Your task to perform on an android device: Search for dell alienware on amazon.com, select the first entry, and add it to the cart. Image 0: 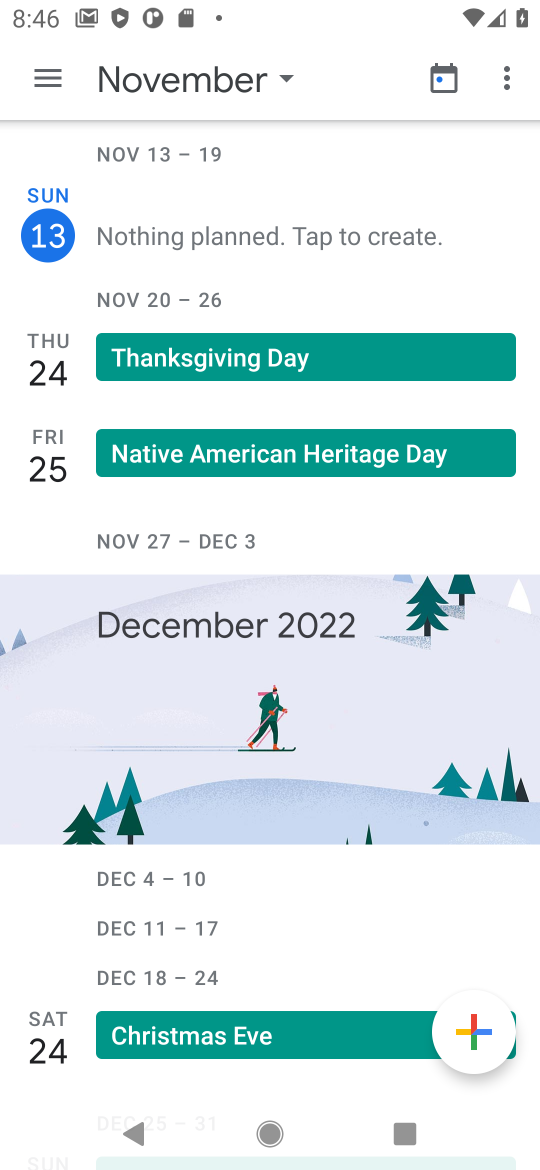
Step 0: press home button
Your task to perform on an android device: Search for dell alienware on amazon.com, select the first entry, and add it to the cart. Image 1: 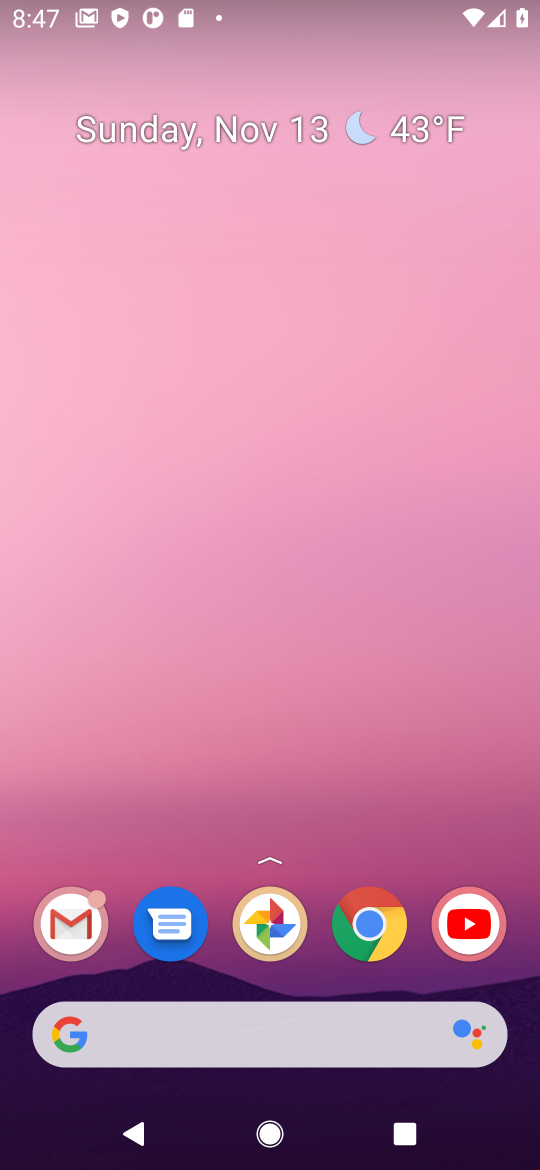
Step 1: click (352, 921)
Your task to perform on an android device: Search for dell alienware on amazon.com, select the first entry, and add it to the cart. Image 2: 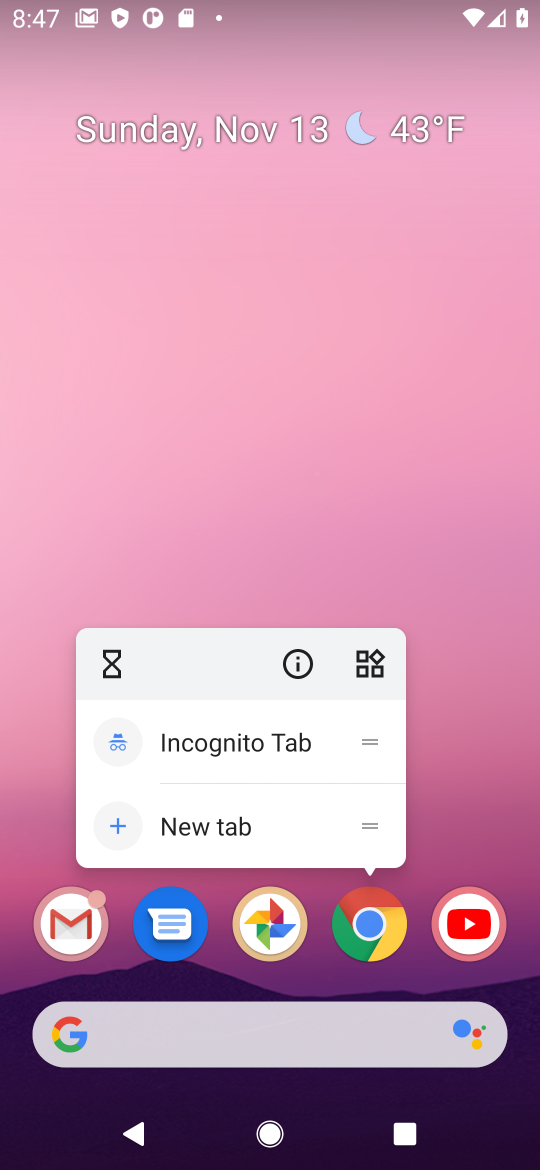
Step 2: click (362, 924)
Your task to perform on an android device: Search for dell alienware on amazon.com, select the first entry, and add it to the cart. Image 3: 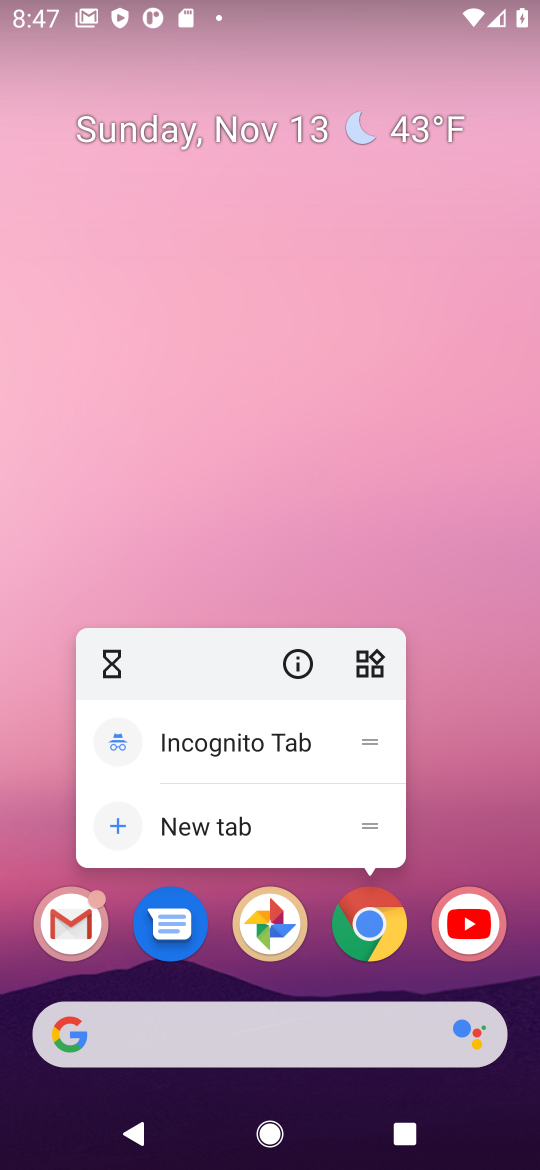
Step 3: click (363, 928)
Your task to perform on an android device: Search for dell alienware on amazon.com, select the first entry, and add it to the cart. Image 4: 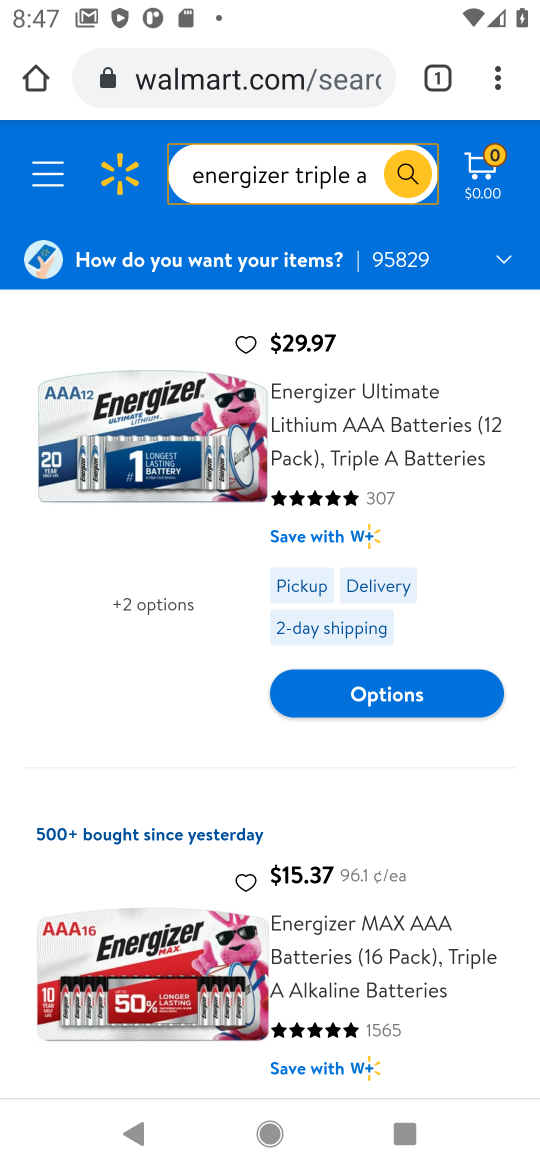
Step 4: click (311, 78)
Your task to perform on an android device: Search for dell alienware on amazon.com, select the first entry, and add it to the cart. Image 5: 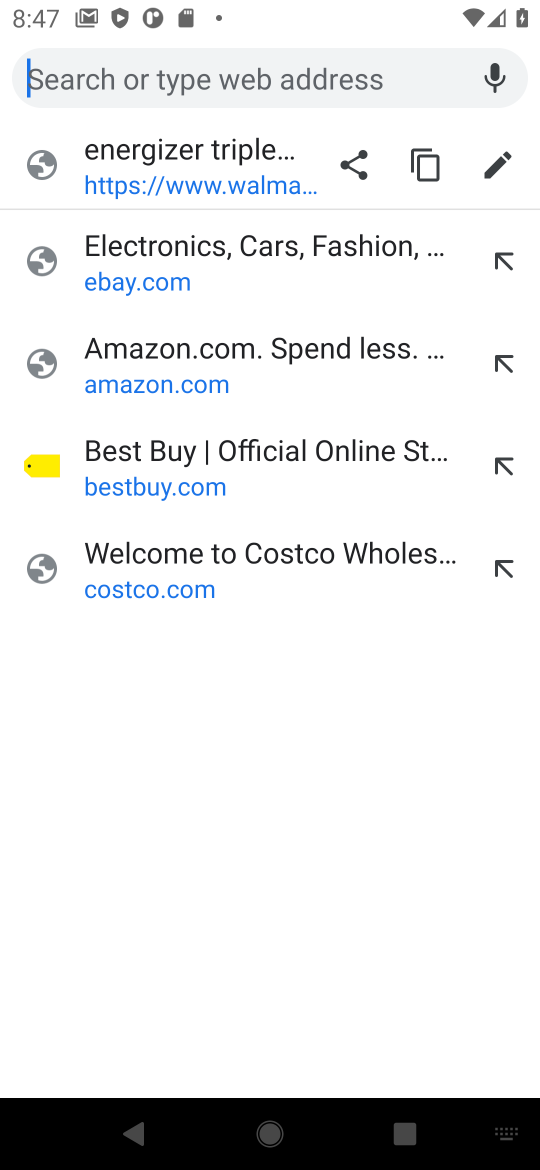
Step 5: click (124, 375)
Your task to perform on an android device: Search for dell alienware on amazon.com, select the first entry, and add it to the cart. Image 6: 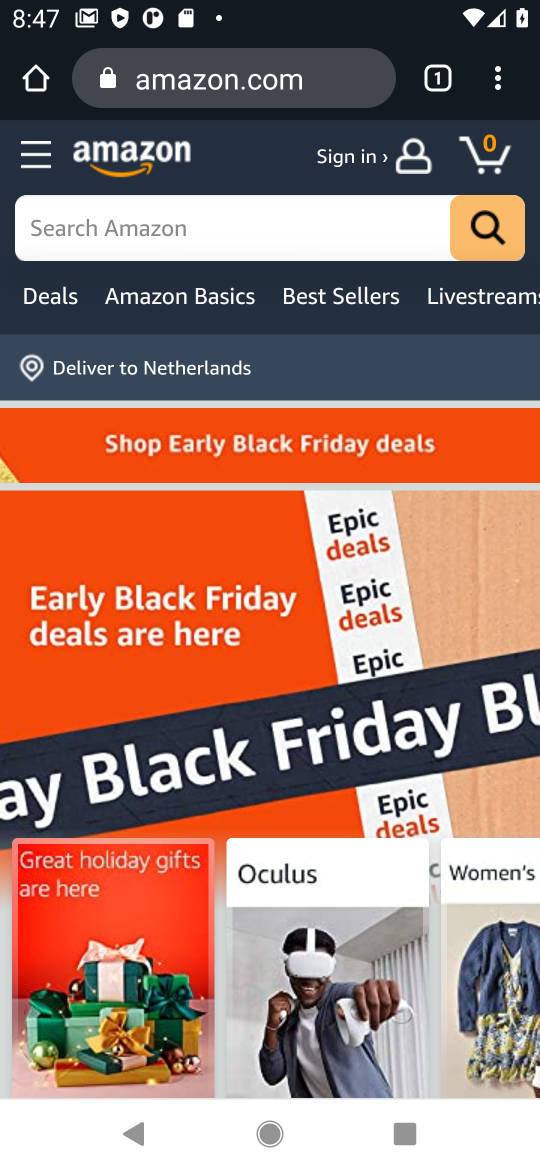
Step 6: click (126, 218)
Your task to perform on an android device: Search for dell alienware on amazon.com, select the first entry, and add it to the cart. Image 7: 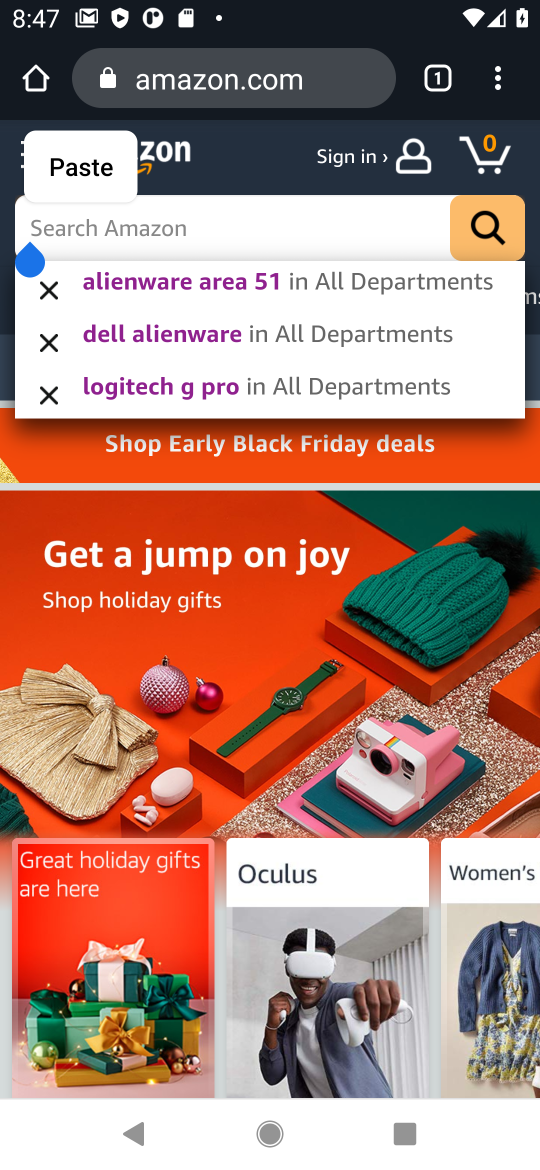
Step 7: click (126, 218)
Your task to perform on an android device: Search for dell alienware on amazon.com, select the first entry, and add it to the cart. Image 8: 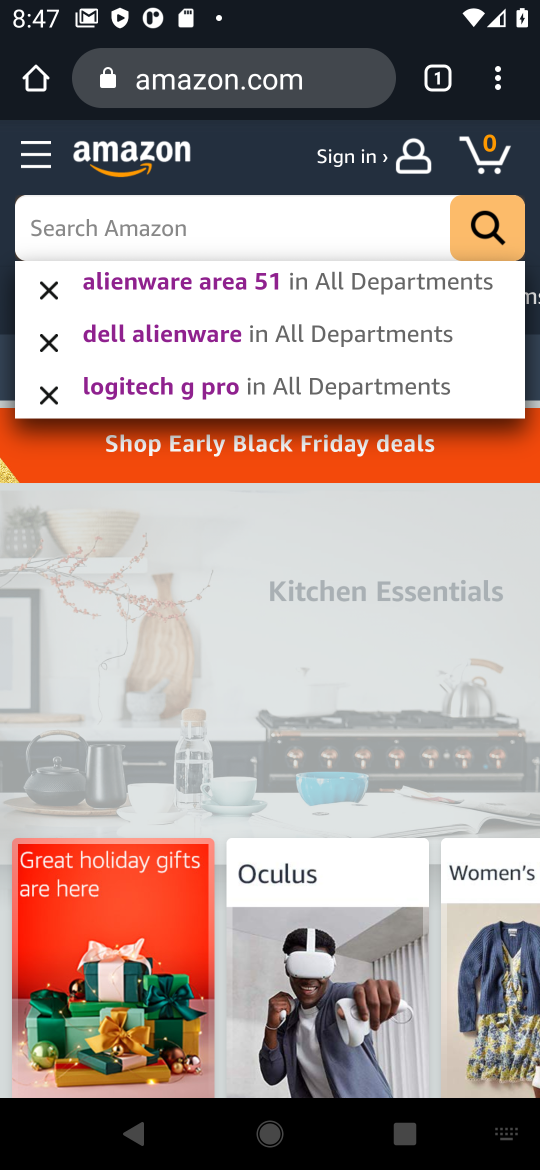
Step 8: type "dell alienware"
Your task to perform on an android device: Search for dell alienware on amazon.com, select the first entry, and add it to the cart. Image 9: 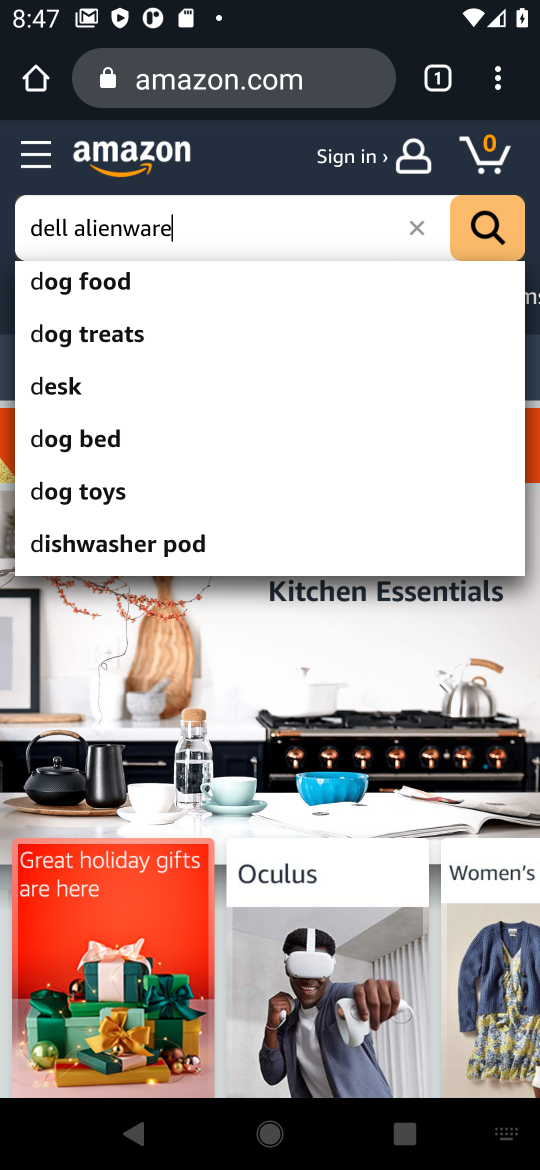
Step 9: press enter
Your task to perform on an android device: Search for dell alienware on amazon.com, select the first entry, and add it to the cart. Image 10: 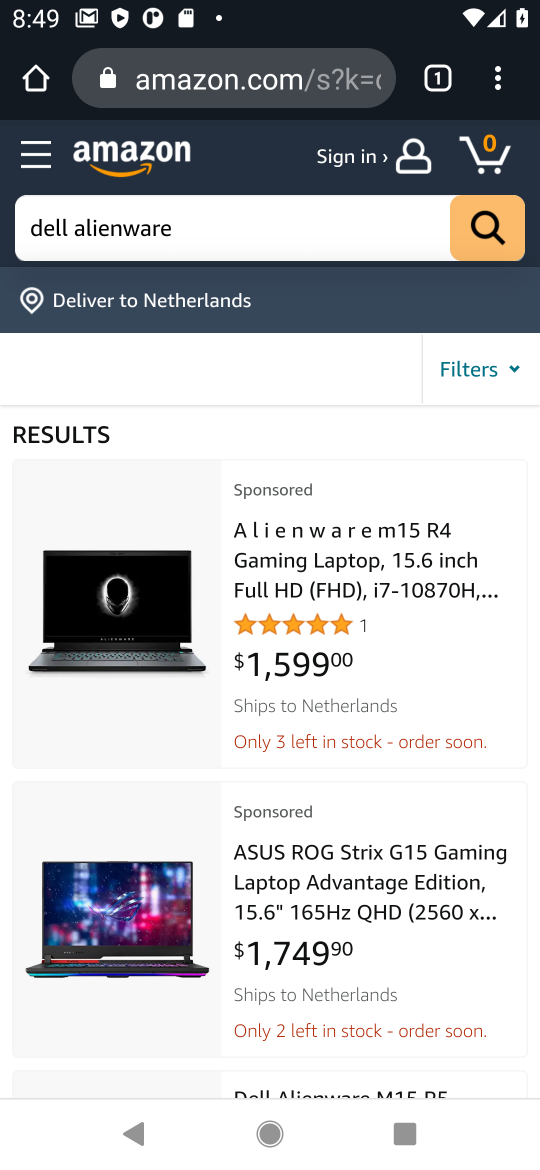
Step 10: task complete